Your task to perform on an android device: check the backup settings in the google photos Image 0: 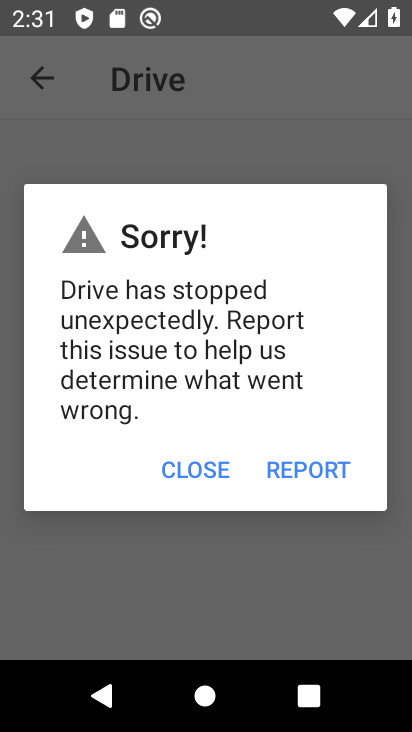
Step 0: press home button
Your task to perform on an android device: check the backup settings in the google photos Image 1: 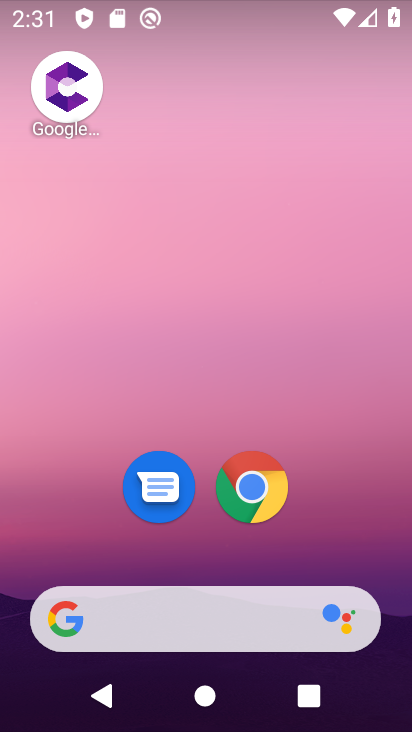
Step 1: drag from (234, 587) to (276, 49)
Your task to perform on an android device: check the backup settings in the google photos Image 2: 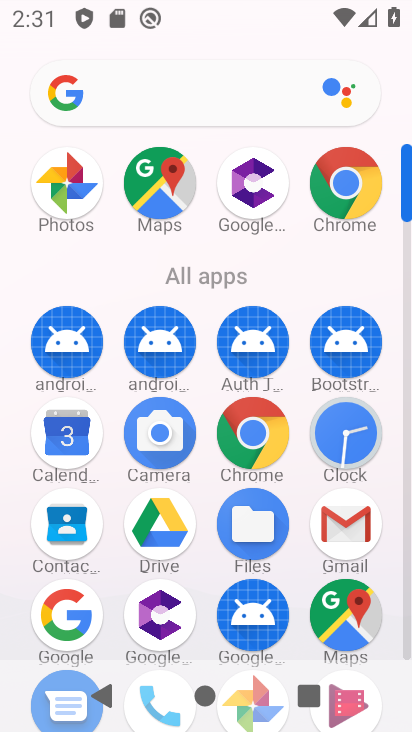
Step 2: drag from (213, 610) to (278, 80)
Your task to perform on an android device: check the backup settings in the google photos Image 3: 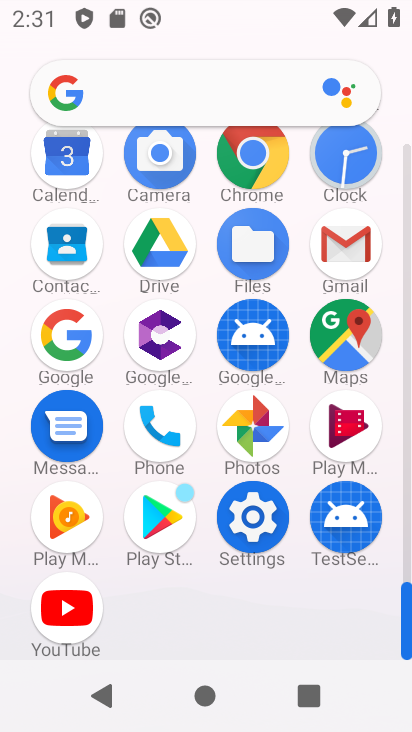
Step 3: click (257, 433)
Your task to perform on an android device: check the backup settings in the google photos Image 4: 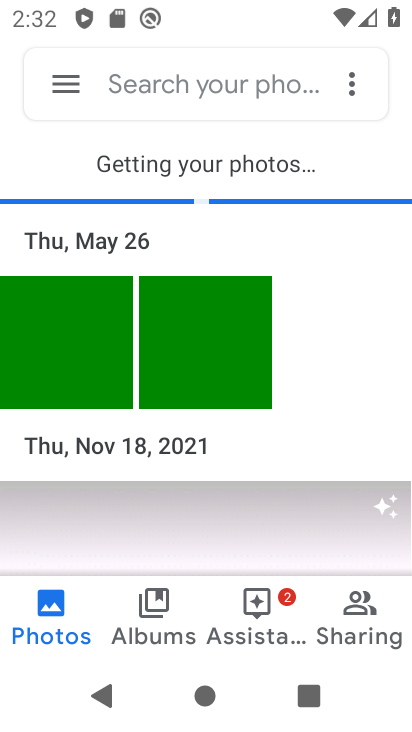
Step 4: click (65, 88)
Your task to perform on an android device: check the backup settings in the google photos Image 5: 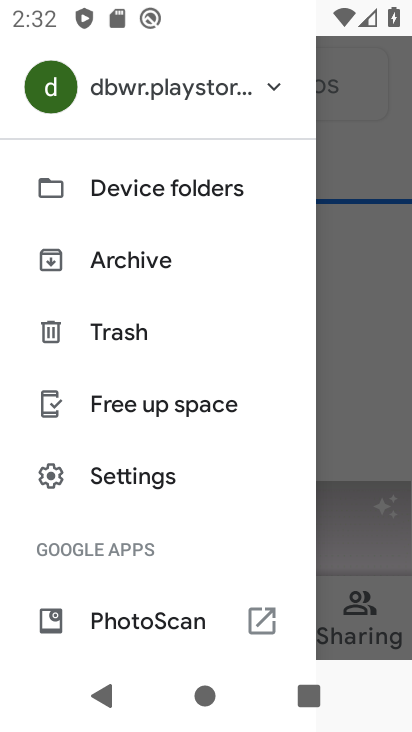
Step 5: click (140, 479)
Your task to perform on an android device: check the backup settings in the google photos Image 6: 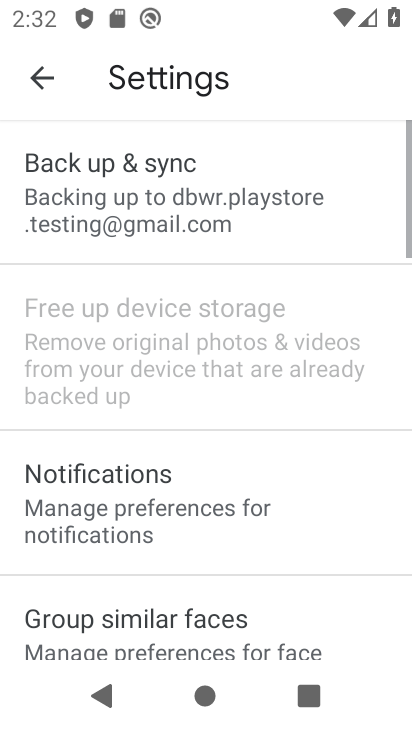
Step 6: click (92, 172)
Your task to perform on an android device: check the backup settings in the google photos Image 7: 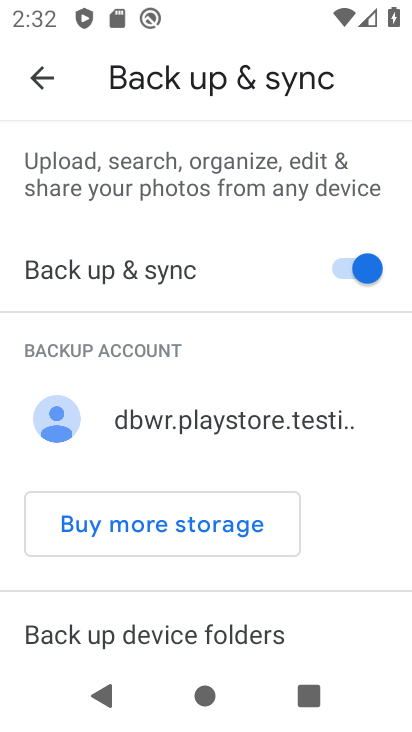
Step 7: task complete